Your task to perform on an android device: Open Android settings Image 0: 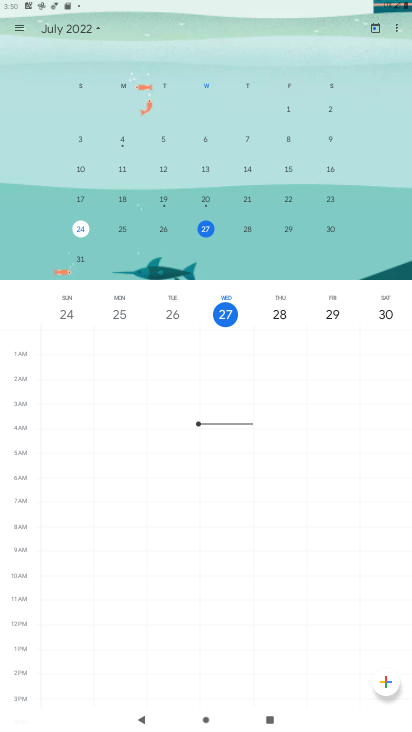
Step 0: press home button
Your task to perform on an android device: Open Android settings Image 1: 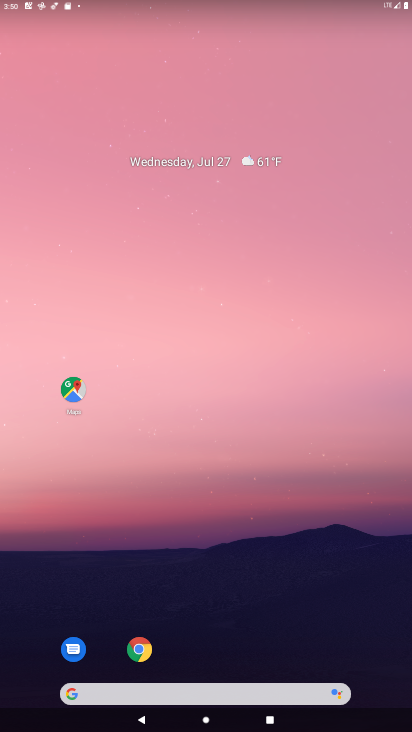
Step 1: drag from (193, 611) to (209, 196)
Your task to perform on an android device: Open Android settings Image 2: 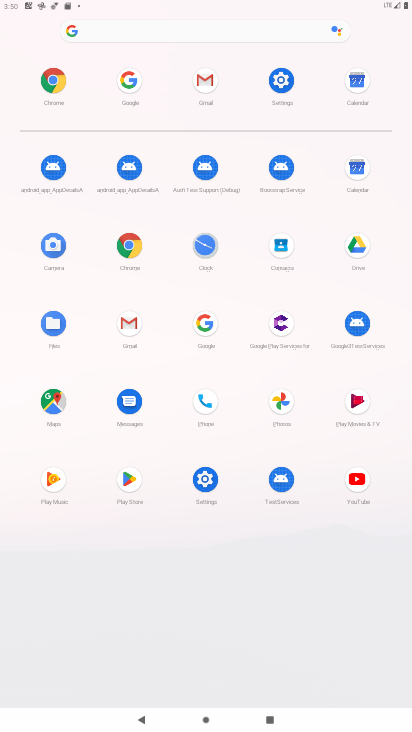
Step 2: click (206, 471)
Your task to perform on an android device: Open Android settings Image 3: 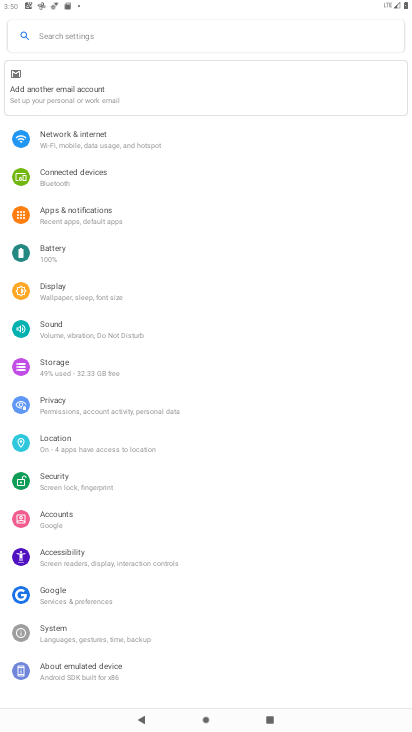
Step 3: click (77, 676)
Your task to perform on an android device: Open Android settings Image 4: 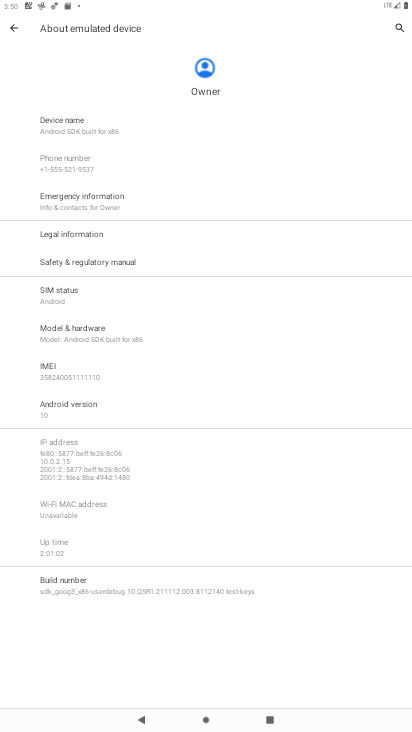
Step 4: click (60, 402)
Your task to perform on an android device: Open Android settings Image 5: 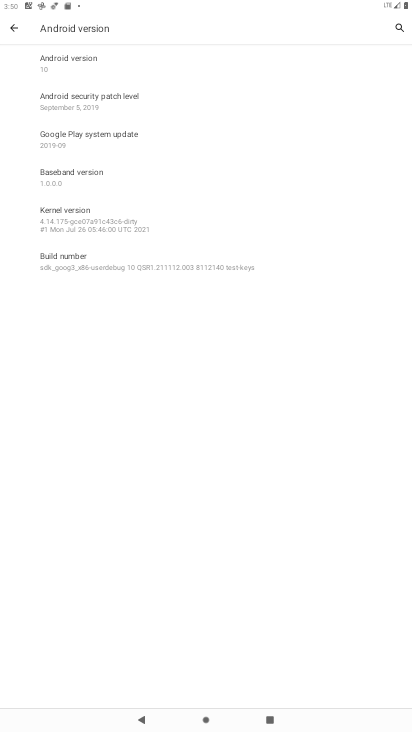
Step 5: task complete